Your task to perform on an android device: turn off wifi Image 0: 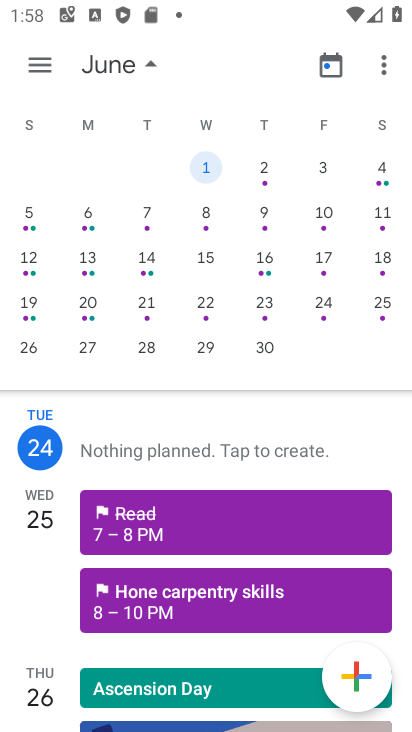
Step 0: press home button
Your task to perform on an android device: turn off wifi Image 1: 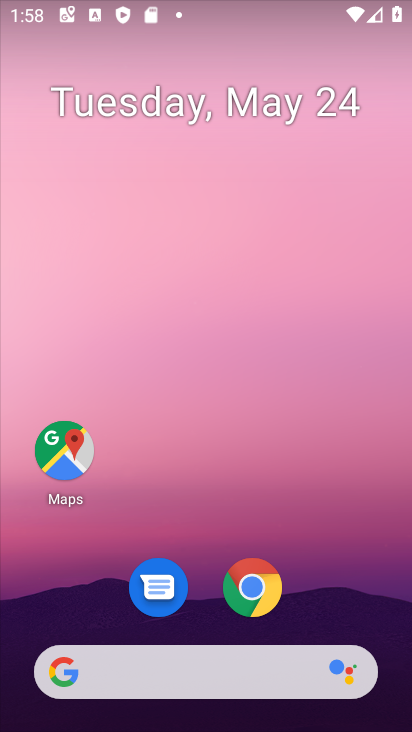
Step 1: drag from (218, 716) to (248, 122)
Your task to perform on an android device: turn off wifi Image 2: 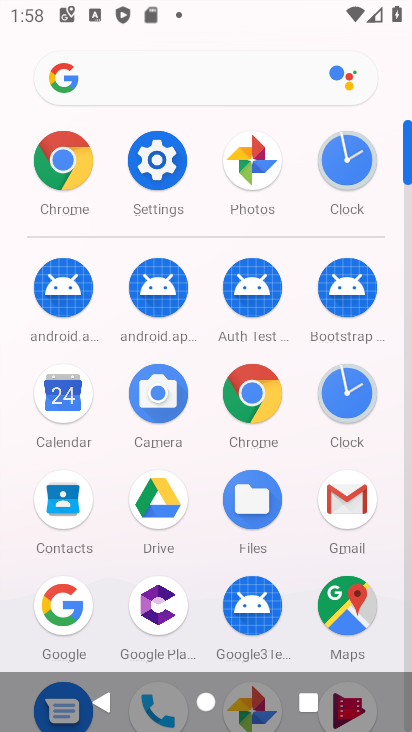
Step 2: click (154, 149)
Your task to perform on an android device: turn off wifi Image 3: 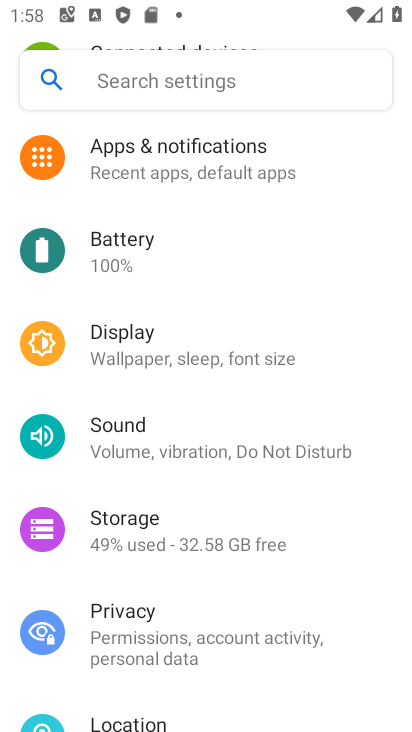
Step 3: drag from (256, 199) to (279, 728)
Your task to perform on an android device: turn off wifi Image 4: 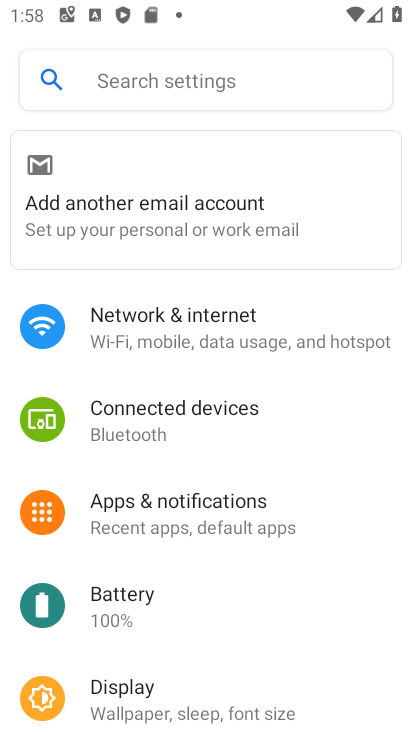
Step 4: click (285, 320)
Your task to perform on an android device: turn off wifi Image 5: 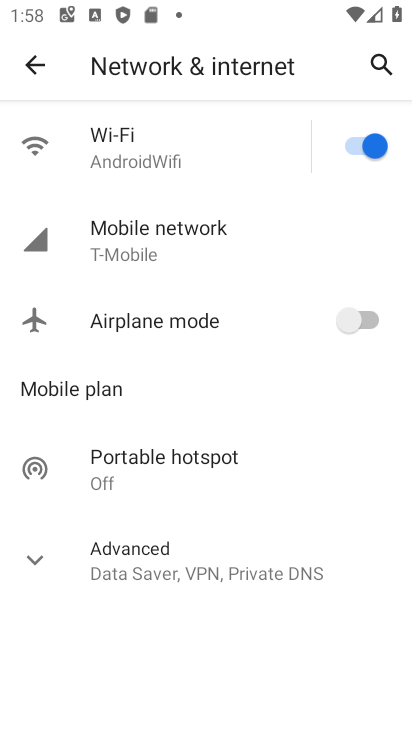
Step 5: click (366, 149)
Your task to perform on an android device: turn off wifi Image 6: 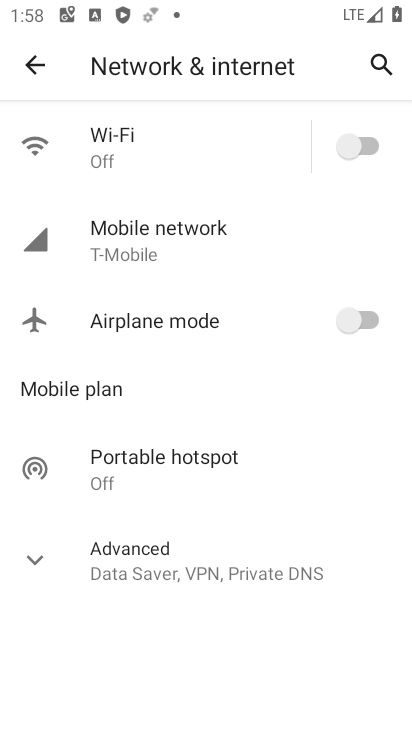
Step 6: task complete